Your task to perform on an android device: turn on notifications settings in the gmail app Image 0: 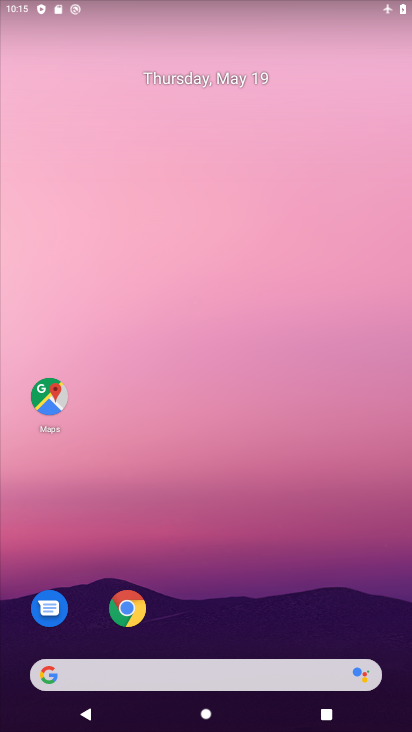
Step 0: drag from (398, 678) to (342, 275)
Your task to perform on an android device: turn on notifications settings in the gmail app Image 1: 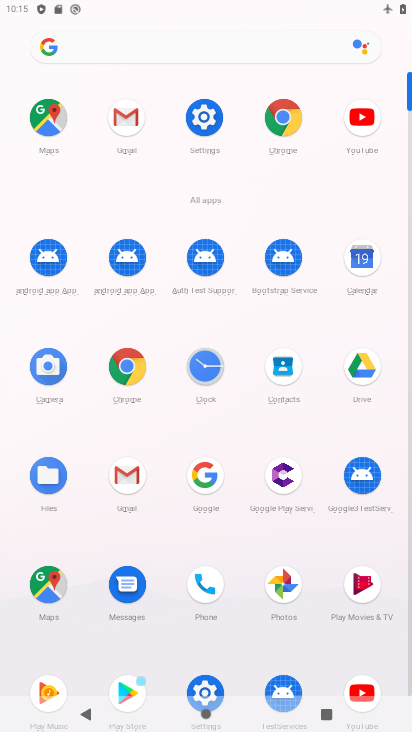
Step 1: click (135, 486)
Your task to perform on an android device: turn on notifications settings in the gmail app Image 2: 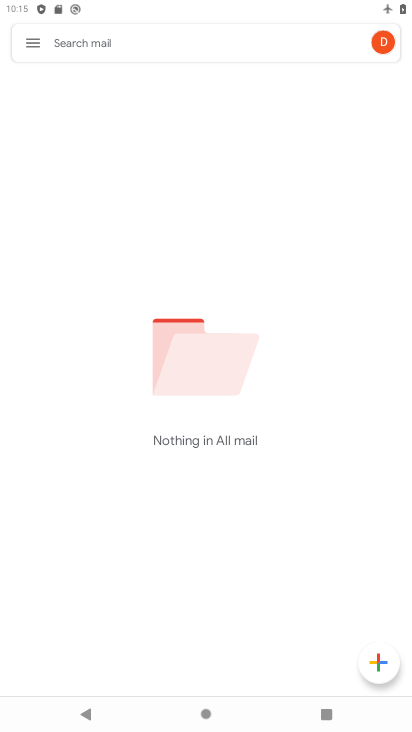
Step 2: click (26, 35)
Your task to perform on an android device: turn on notifications settings in the gmail app Image 3: 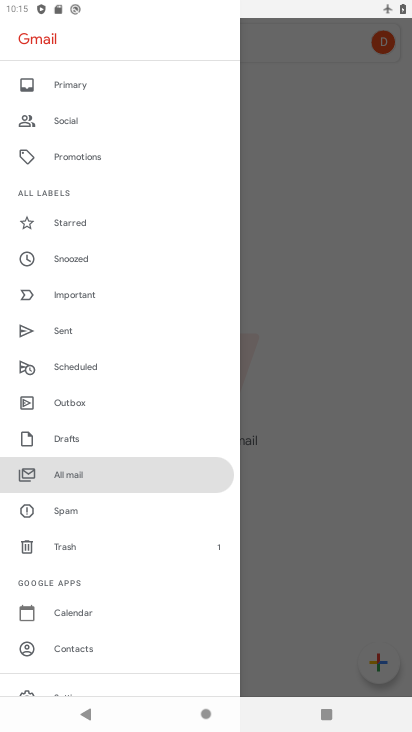
Step 3: drag from (161, 639) to (143, 397)
Your task to perform on an android device: turn on notifications settings in the gmail app Image 4: 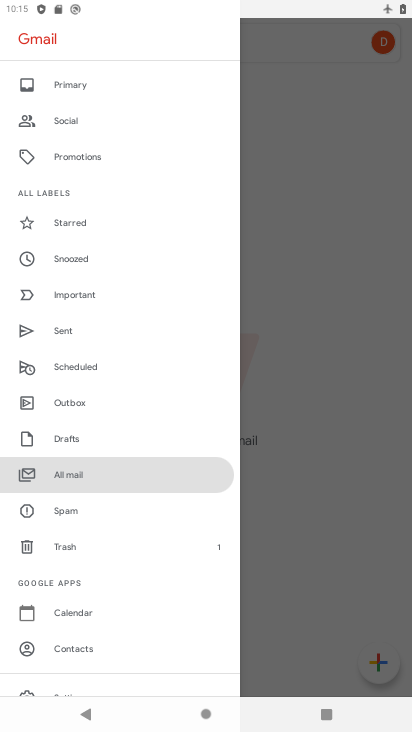
Step 4: drag from (155, 664) to (155, 415)
Your task to perform on an android device: turn on notifications settings in the gmail app Image 5: 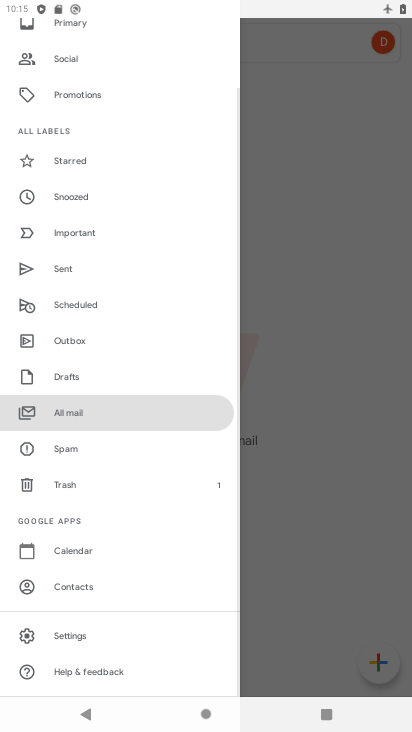
Step 5: click (64, 638)
Your task to perform on an android device: turn on notifications settings in the gmail app Image 6: 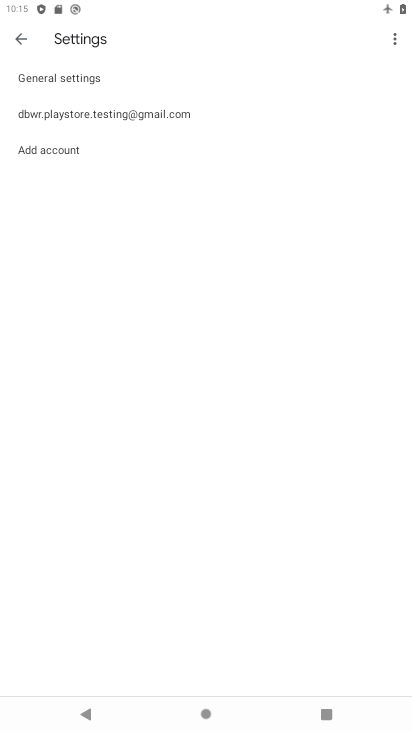
Step 6: click (34, 74)
Your task to perform on an android device: turn on notifications settings in the gmail app Image 7: 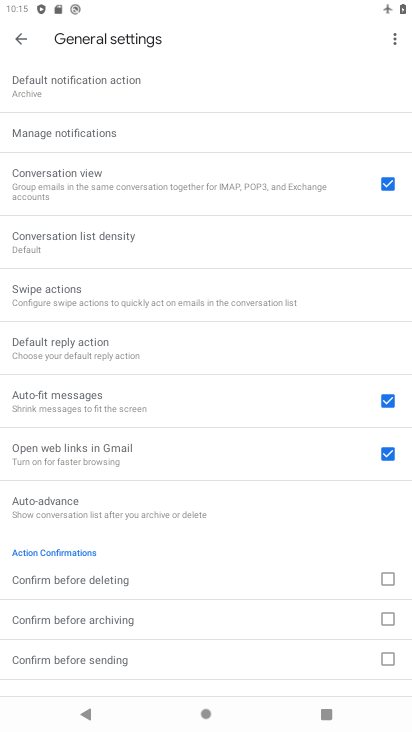
Step 7: click (73, 135)
Your task to perform on an android device: turn on notifications settings in the gmail app Image 8: 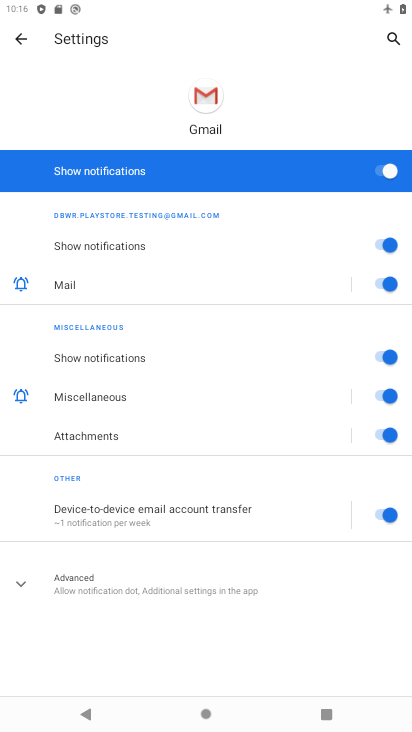
Step 8: task complete